Your task to perform on an android device: Go to Google Image 0: 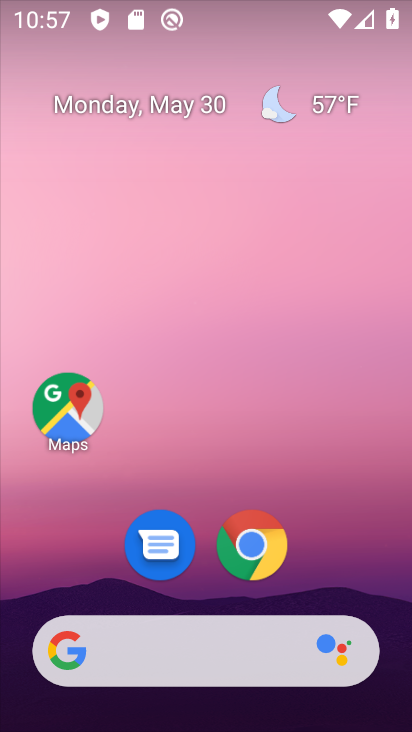
Step 0: press home button
Your task to perform on an android device: Go to Google Image 1: 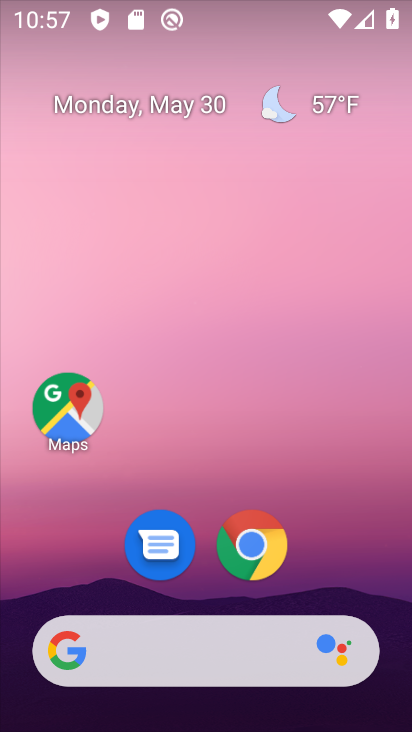
Step 1: click (71, 655)
Your task to perform on an android device: Go to Google Image 2: 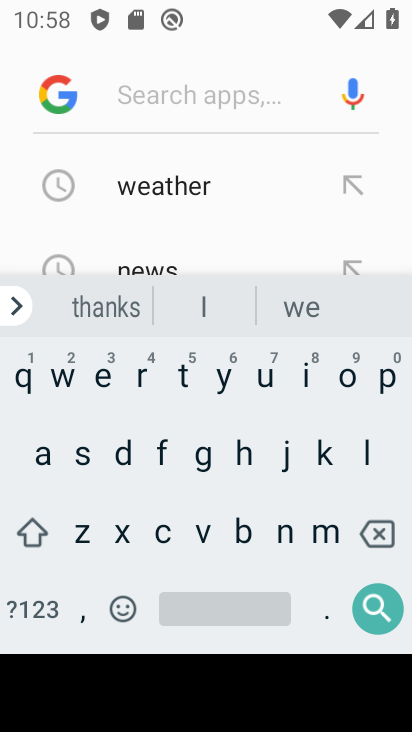
Step 2: click (60, 101)
Your task to perform on an android device: Go to Google Image 3: 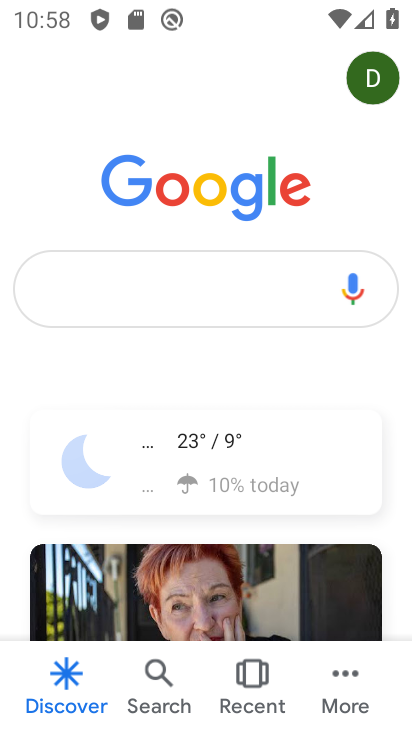
Step 3: task complete